Your task to perform on an android device: make emails show in primary in the gmail app Image 0: 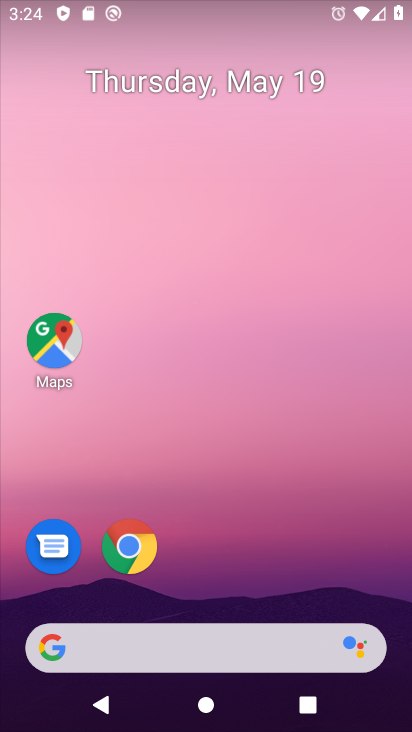
Step 0: drag from (199, 595) to (233, 28)
Your task to perform on an android device: make emails show in primary in the gmail app Image 1: 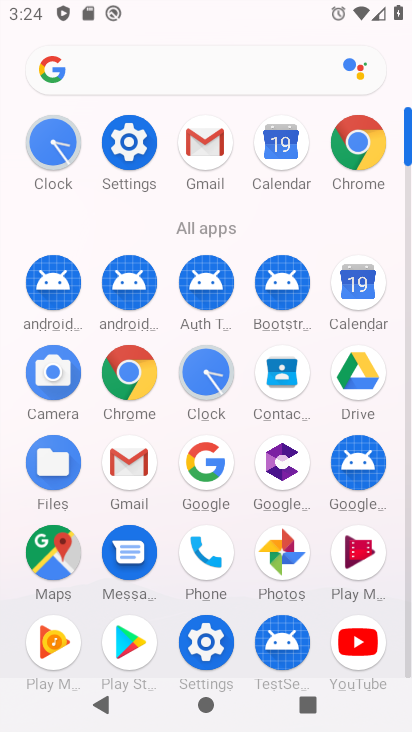
Step 1: click (125, 451)
Your task to perform on an android device: make emails show in primary in the gmail app Image 2: 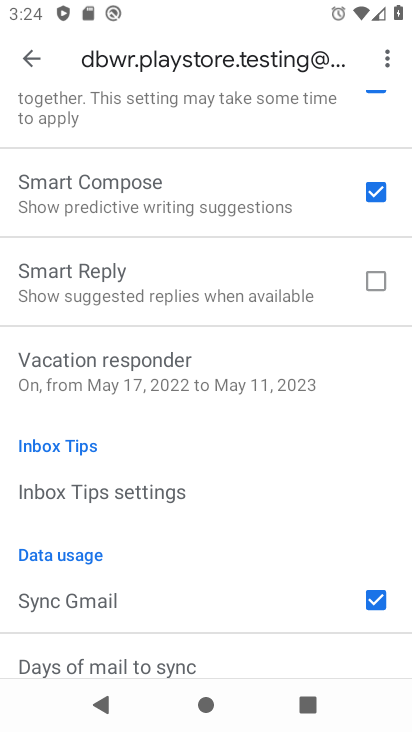
Step 2: drag from (174, 210) to (168, 706)
Your task to perform on an android device: make emails show in primary in the gmail app Image 3: 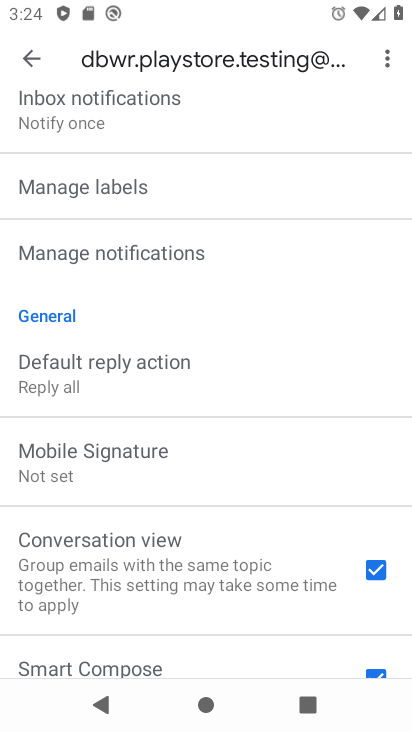
Step 3: drag from (165, 156) to (179, 603)
Your task to perform on an android device: make emails show in primary in the gmail app Image 4: 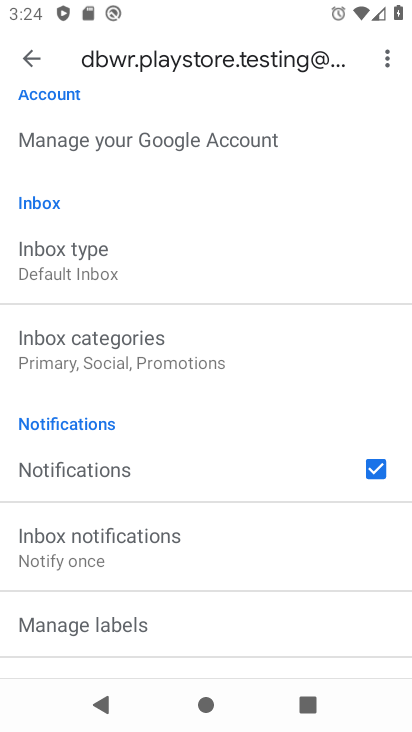
Step 4: drag from (123, 184) to (133, 657)
Your task to perform on an android device: make emails show in primary in the gmail app Image 5: 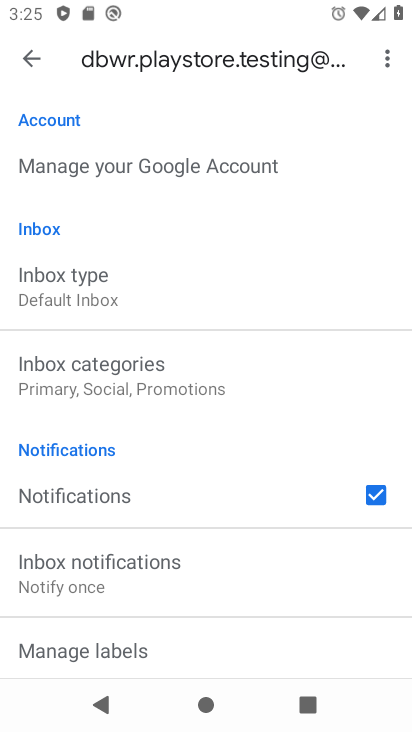
Step 5: click (158, 288)
Your task to perform on an android device: make emails show in primary in the gmail app Image 6: 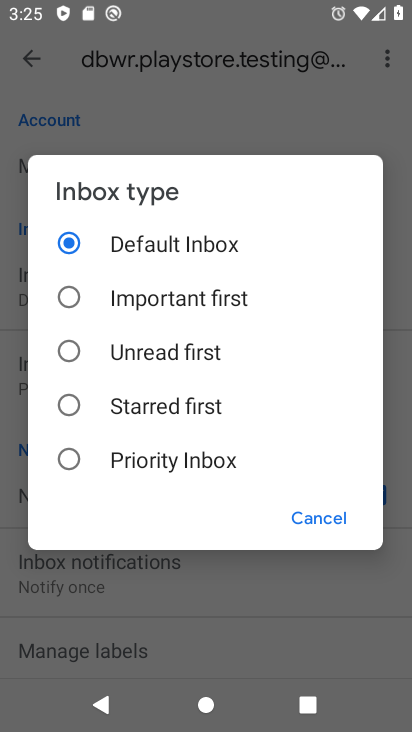
Step 6: click (86, 240)
Your task to perform on an android device: make emails show in primary in the gmail app Image 7: 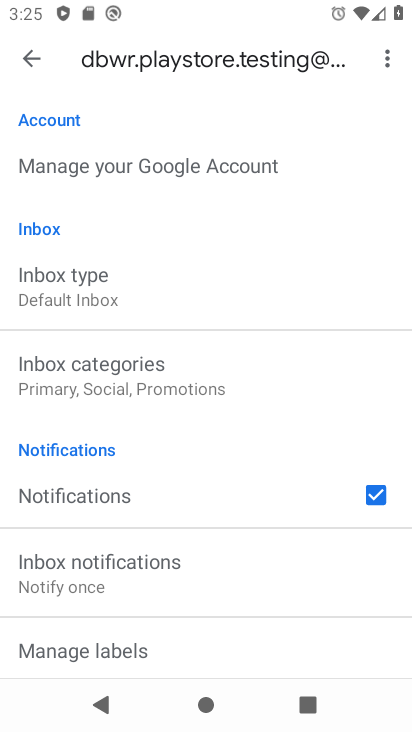
Step 7: task complete